Your task to perform on an android device: change your default location settings in chrome Image 0: 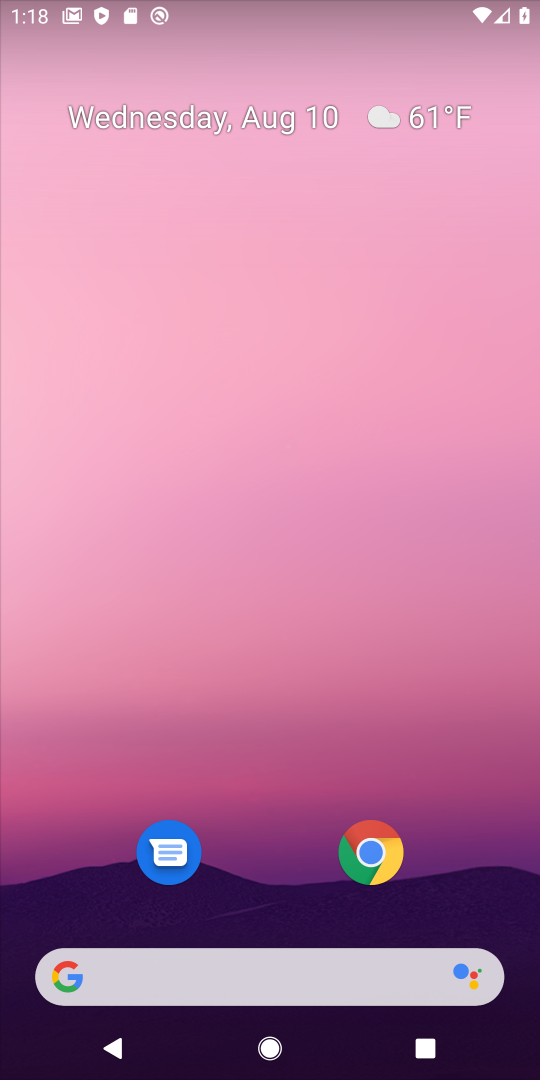
Step 0: drag from (272, 876) to (322, 0)
Your task to perform on an android device: change your default location settings in chrome Image 1: 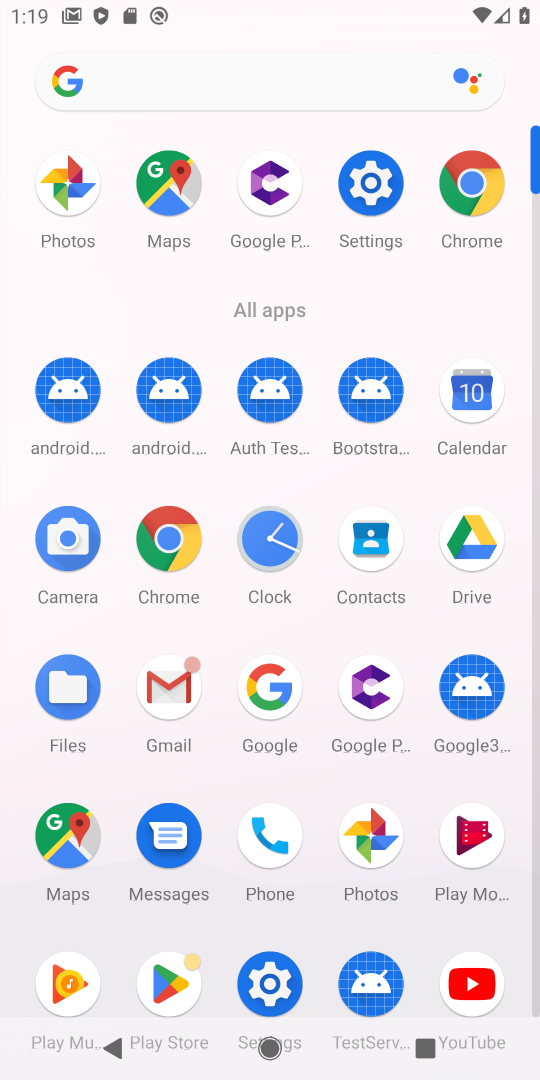
Step 1: click (168, 545)
Your task to perform on an android device: change your default location settings in chrome Image 2: 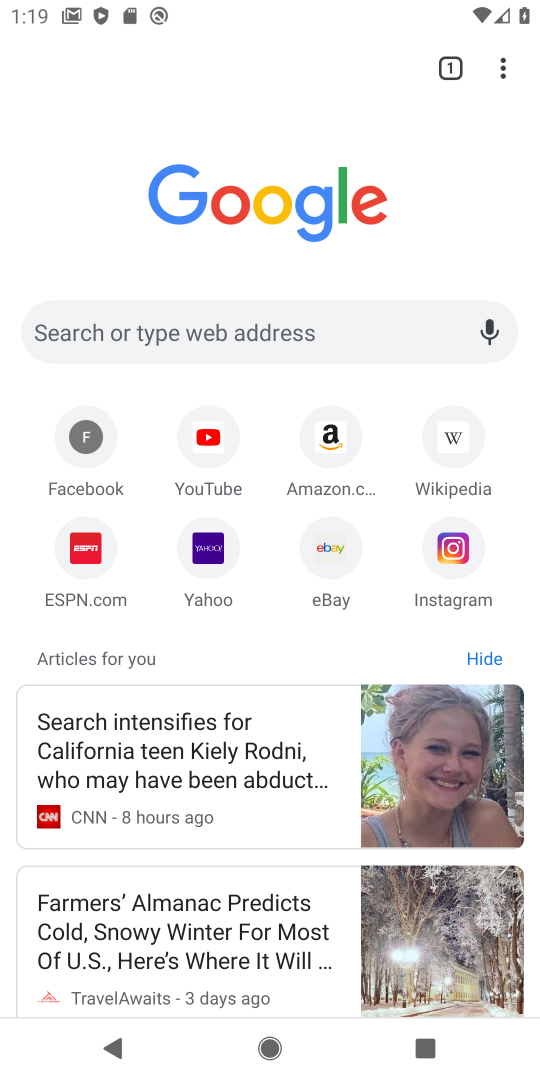
Step 2: drag from (513, 64) to (289, 556)
Your task to perform on an android device: change your default location settings in chrome Image 3: 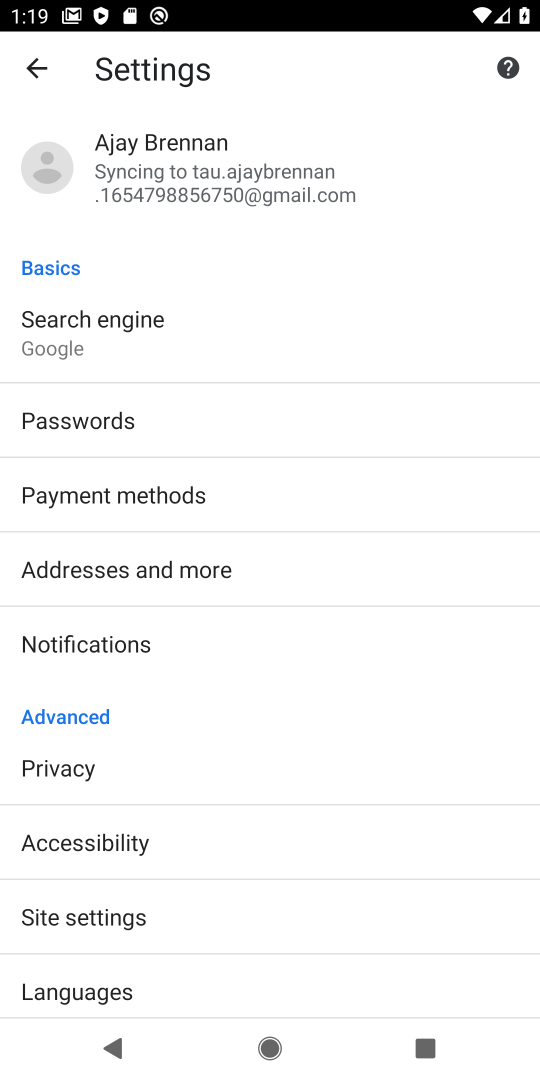
Step 3: drag from (160, 938) to (214, 274)
Your task to perform on an android device: change your default location settings in chrome Image 4: 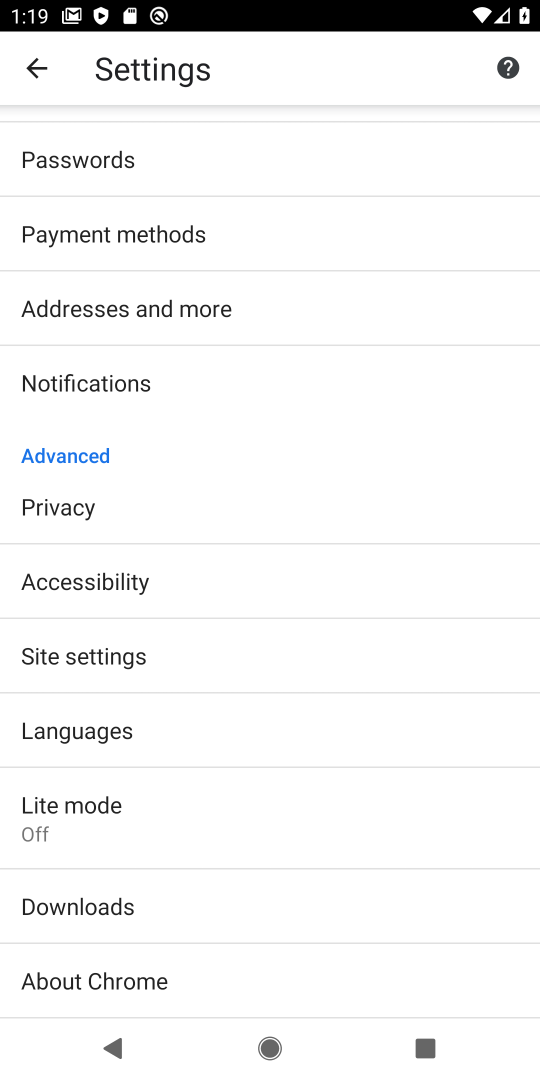
Step 4: click (91, 661)
Your task to perform on an android device: change your default location settings in chrome Image 5: 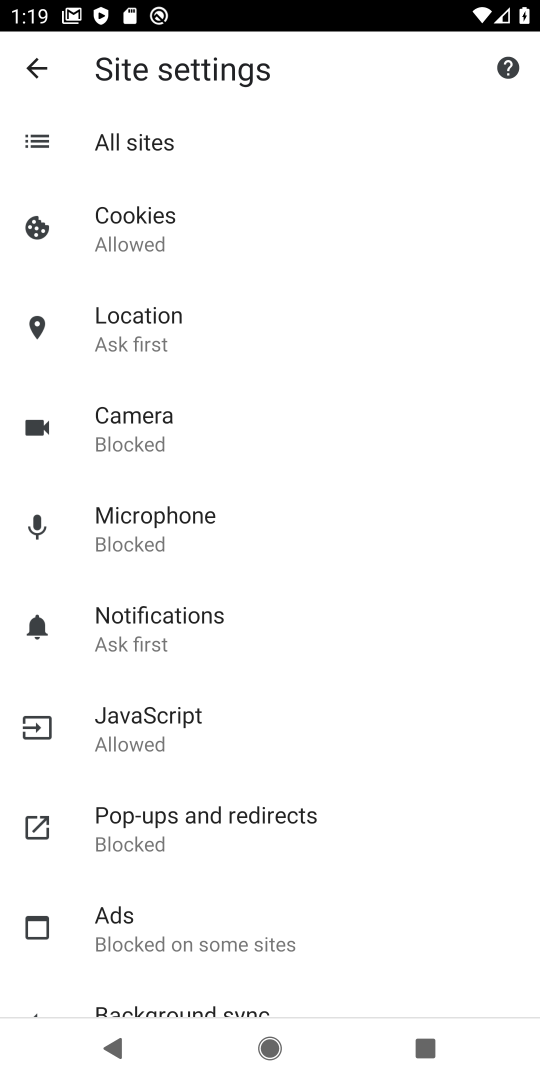
Step 5: click (227, 329)
Your task to perform on an android device: change your default location settings in chrome Image 6: 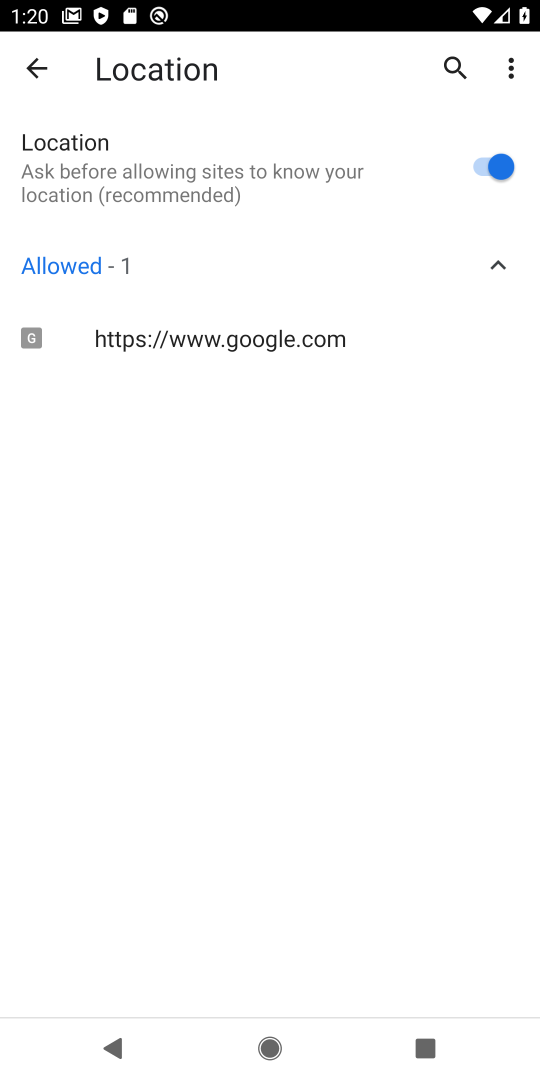
Step 6: click (486, 159)
Your task to perform on an android device: change your default location settings in chrome Image 7: 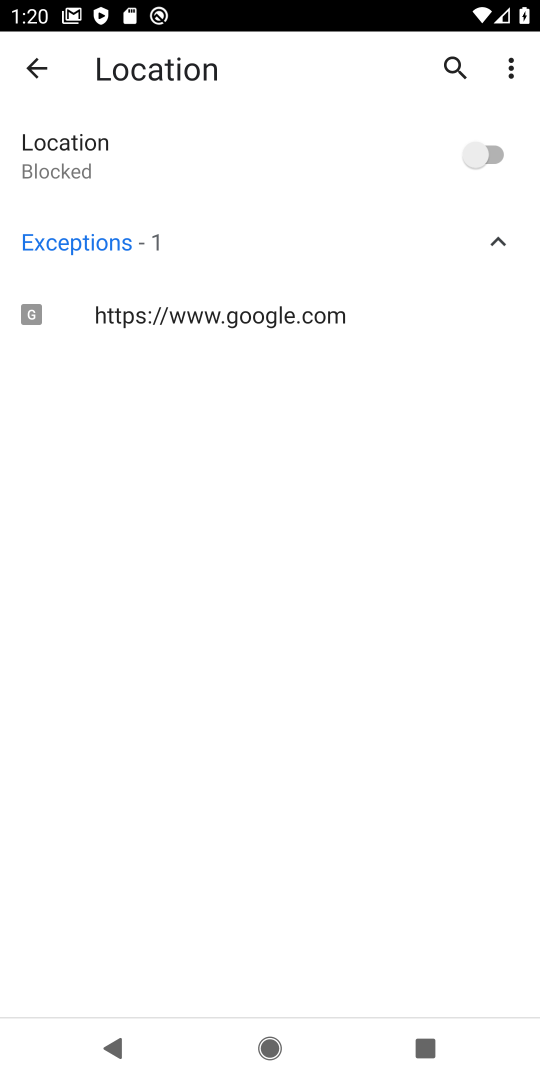
Step 7: task complete